Your task to perform on an android device: open device folders in google photos Image 0: 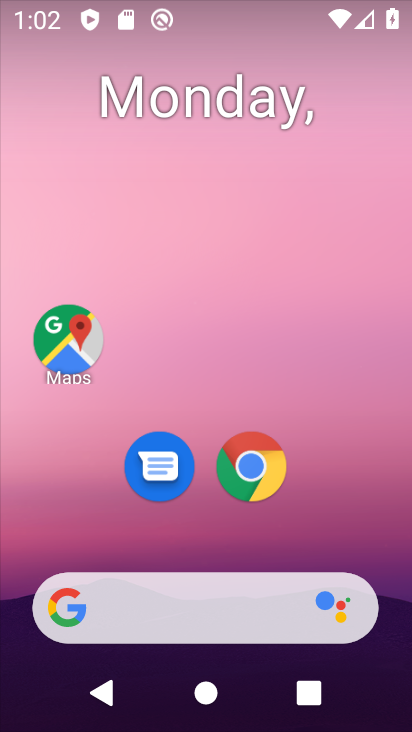
Step 0: drag from (204, 567) to (264, 72)
Your task to perform on an android device: open device folders in google photos Image 1: 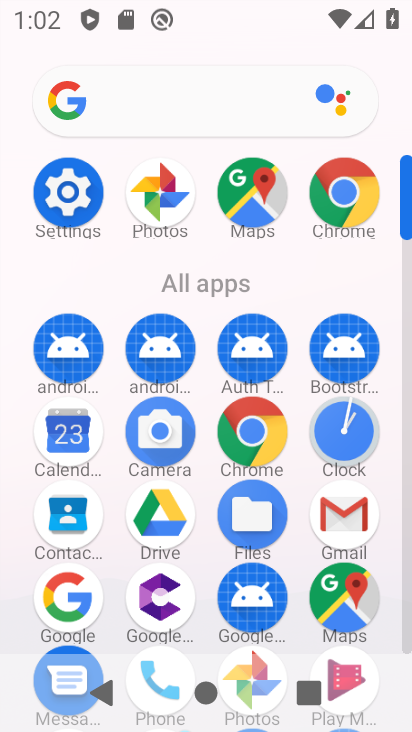
Step 1: drag from (282, 550) to (298, 141)
Your task to perform on an android device: open device folders in google photos Image 2: 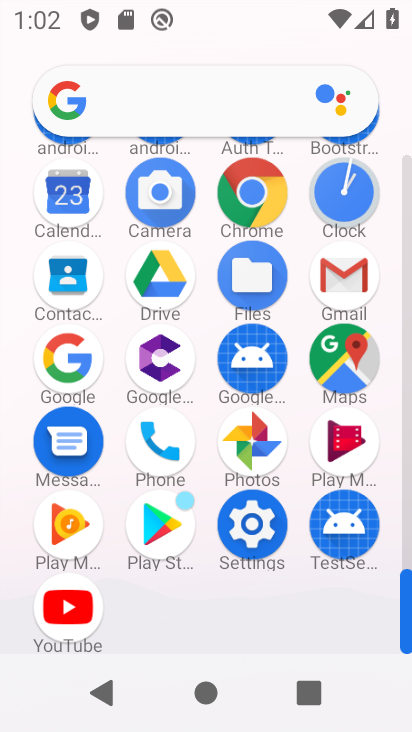
Step 2: click (240, 451)
Your task to perform on an android device: open device folders in google photos Image 3: 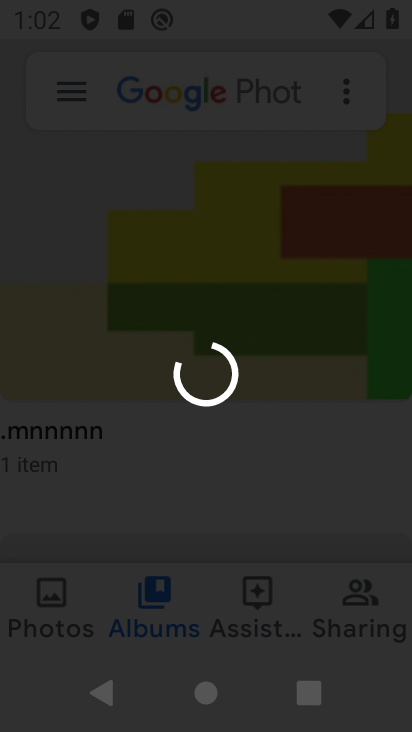
Step 3: click (237, 470)
Your task to perform on an android device: open device folders in google photos Image 4: 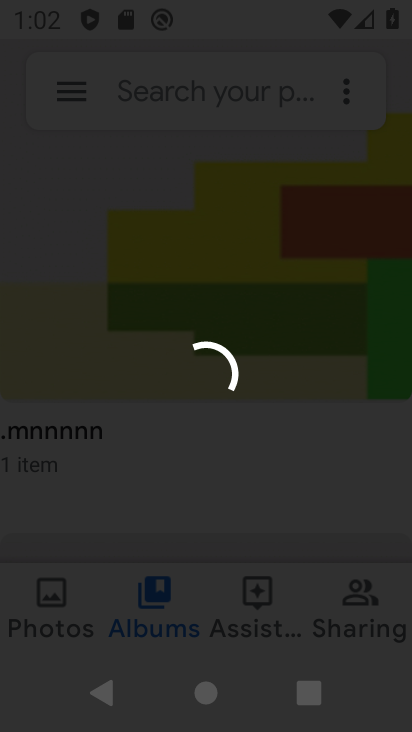
Step 4: press back button
Your task to perform on an android device: open device folders in google photos Image 5: 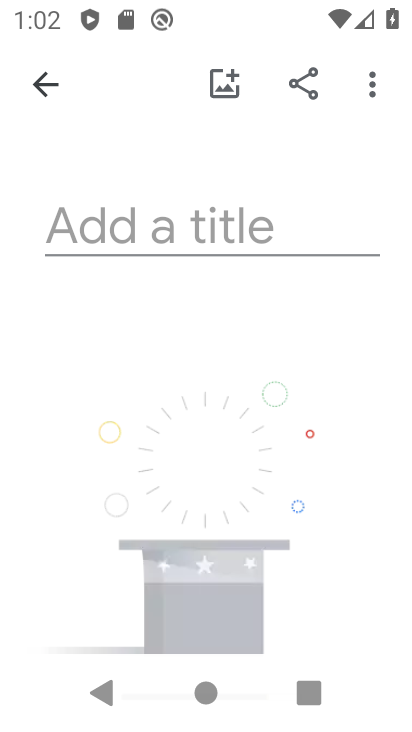
Step 5: click (50, 85)
Your task to perform on an android device: open device folders in google photos Image 6: 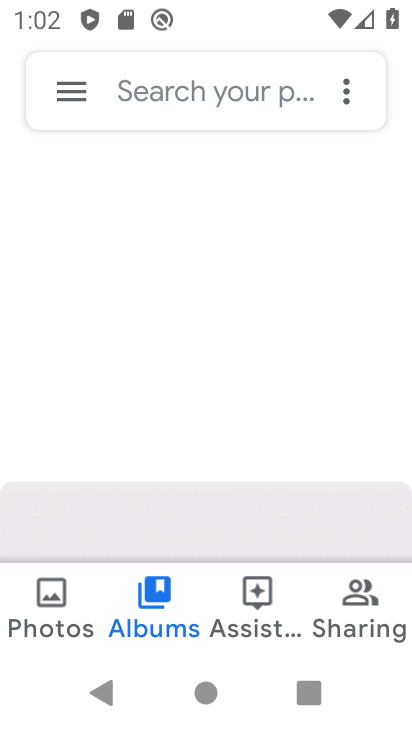
Step 6: click (54, 591)
Your task to perform on an android device: open device folders in google photos Image 7: 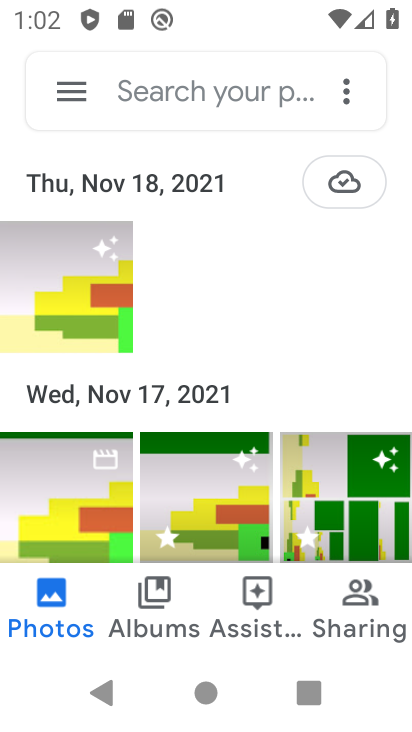
Step 7: click (68, 90)
Your task to perform on an android device: open device folders in google photos Image 8: 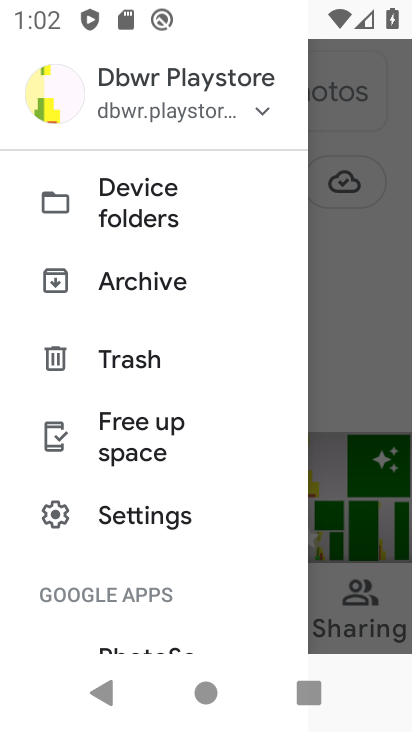
Step 8: click (143, 216)
Your task to perform on an android device: open device folders in google photos Image 9: 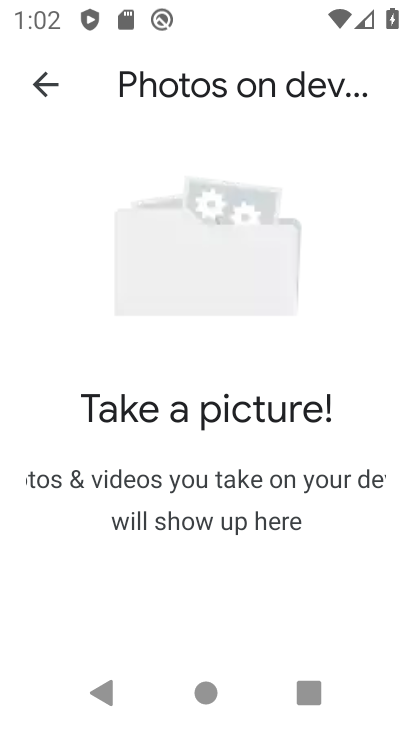
Step 9: task complete